Your task to perform on an android device: Open settings Image 0: 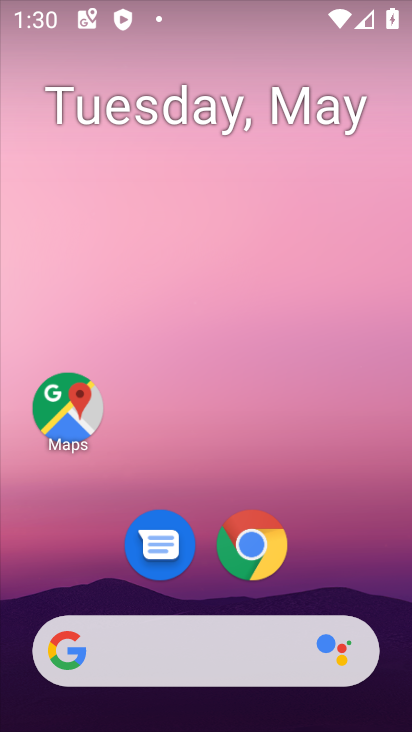
Step 0: drag from (391, 609) to (329, 118)
Your task to perform on an android device: Open settings Image 1: 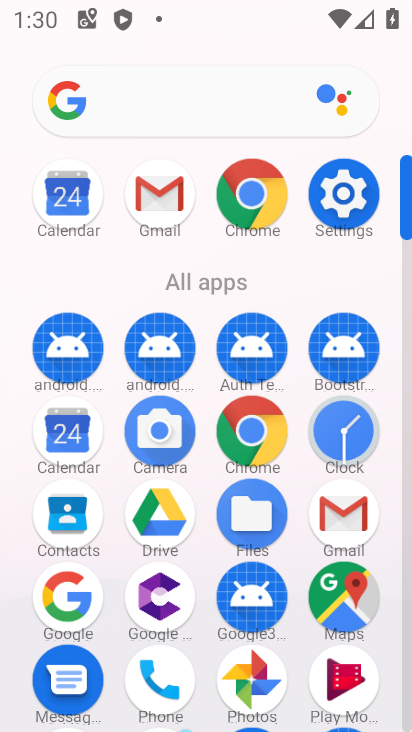
Step 1: click (406, 677)
Your task to perform on an android device: Open settings Image 2: 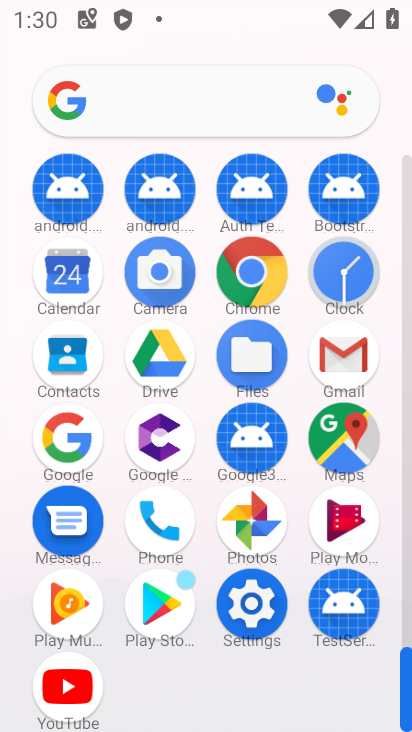
Step 2: click (252, 607)
Your task to perform on an android device: Open settings Image 3: 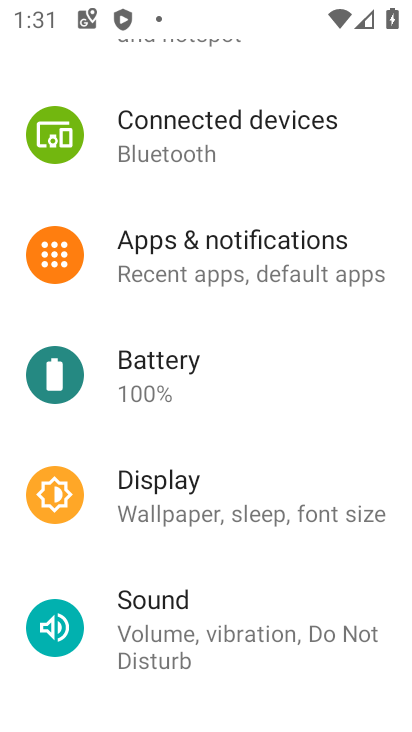
Step 3: task complete